Your task to perform on an android device: Go to Amazon Image 0: 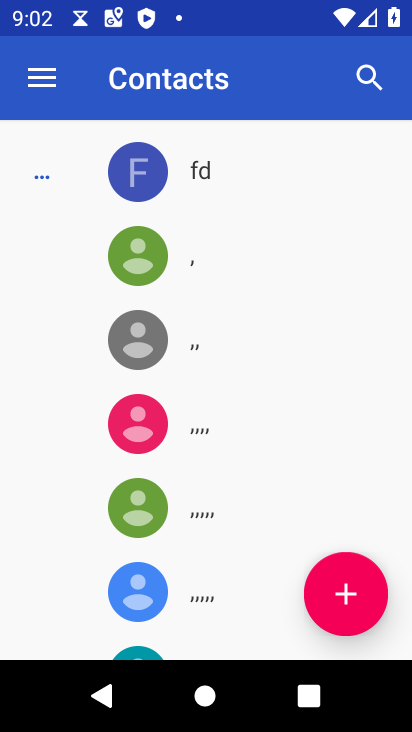
Step 0: press home button
Your task to perform on an android device: Go to Amazon Image 1: 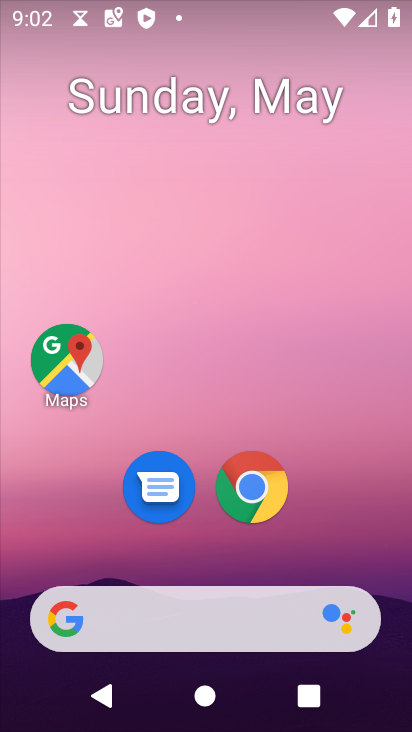
Step 1: drag from (351, 491) to (382, 138)
Your task to perform on an android device: Go to Amazon Image 2: 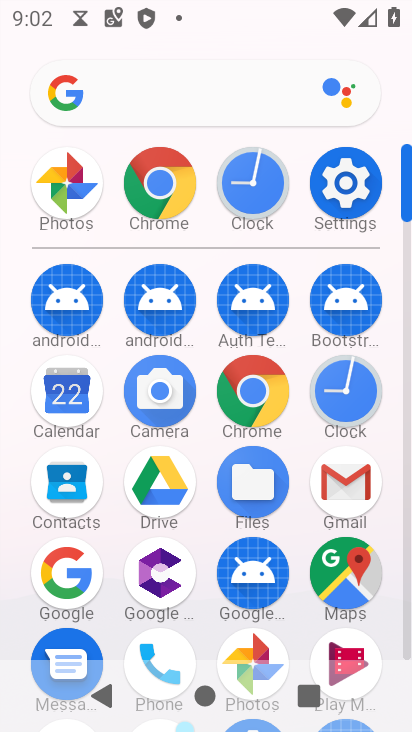
Step 2: click (170, 196)
Your task to perform on an android device: Go to Amazon Image 3: 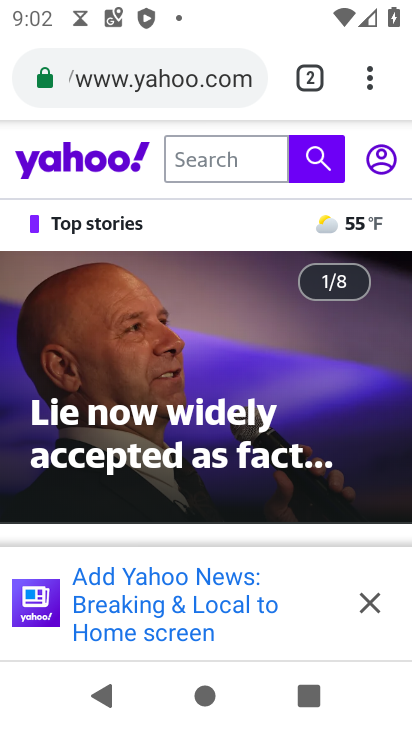
Step 3: click (232, 82)
Your task to perform on an android device: Go to Amazon Image 4: 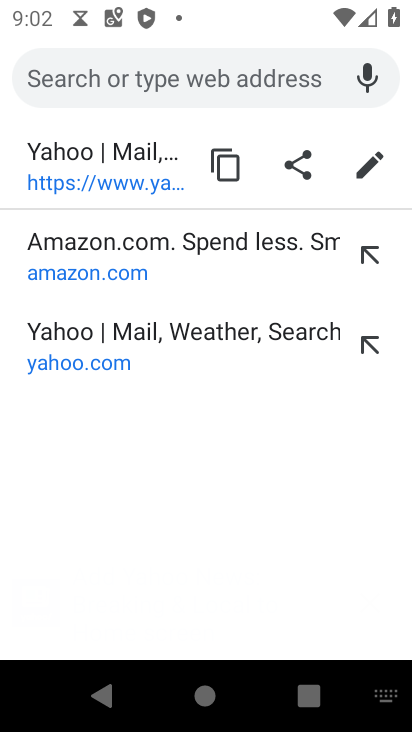
Step 4: click (179, 259)
Your task to perform on an android device: Go to Amazon Image 5: 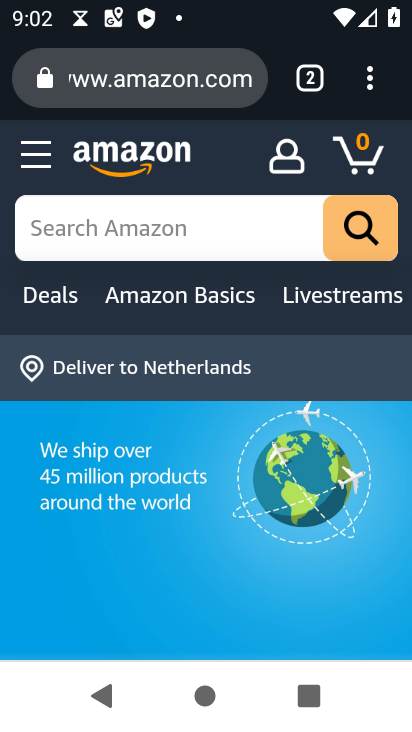
Step 5: task complete